Your task to perform on an android device: set default search engine in the chrome app Image 0: 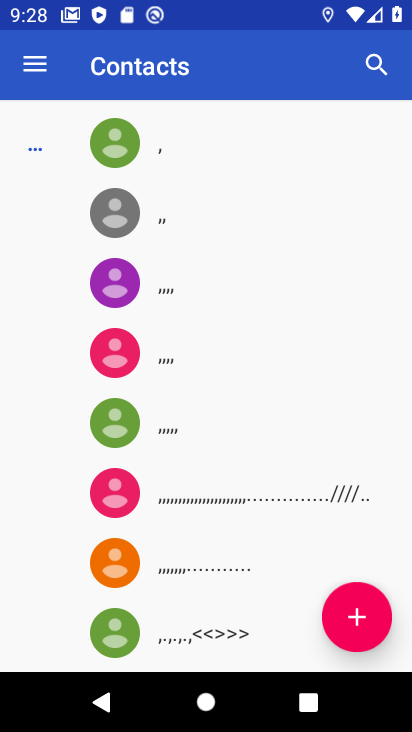
Step 0: press home button
Your task to perform on an android device: set default search engine in the chrome app Image 1: 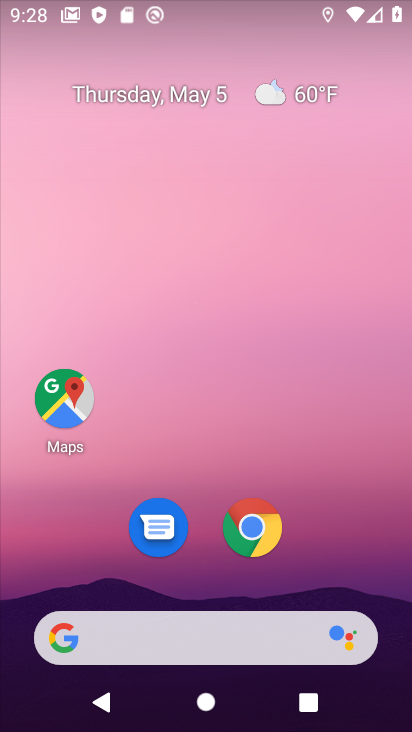
Step 1: click (248, 520)
Your task to perform on an android device: set default search engine in the chrome app Image 2: 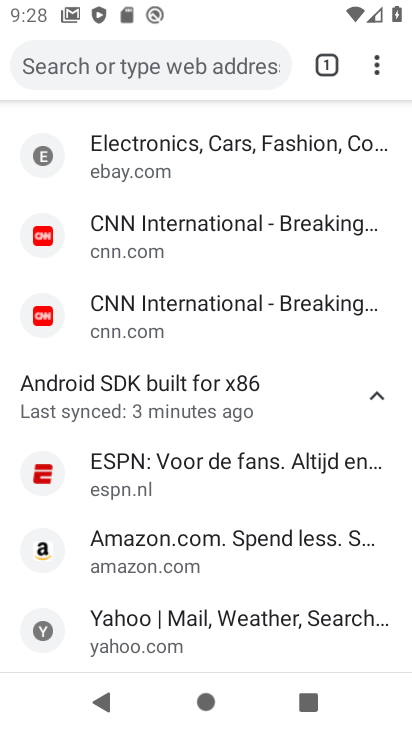
Step 2: click (379, 63)
Your task to perform on an android device: set default search engine in the chrome app Image 3: 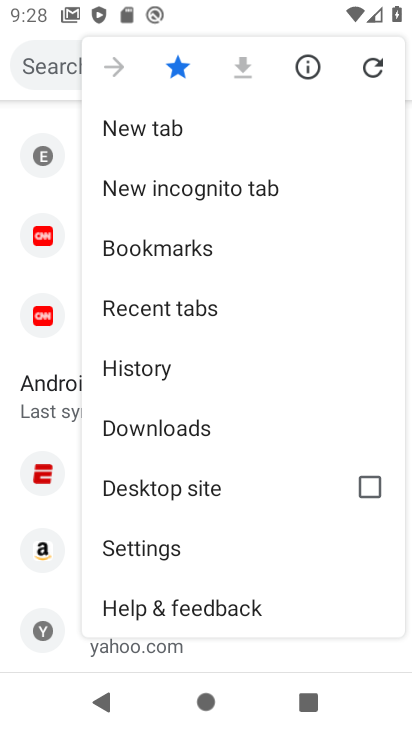
Step 3: click (180, 538)
Your task to perform on an android device: set default search engine in the chrome app Image 4: 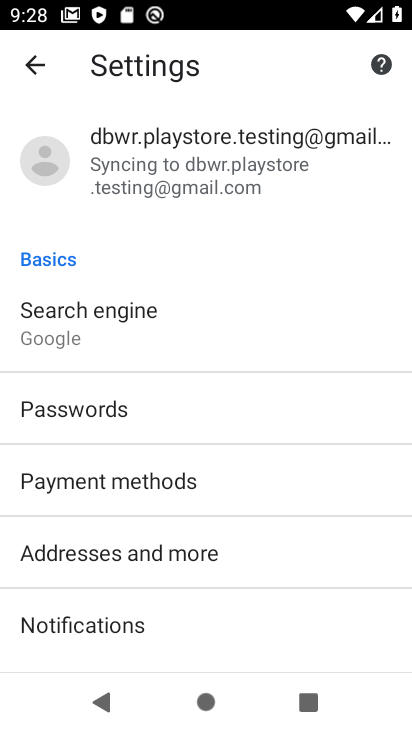
Step 4: click (114, 332)
Your task to perform on an android device: set default search engine in the chrome app Image 5: 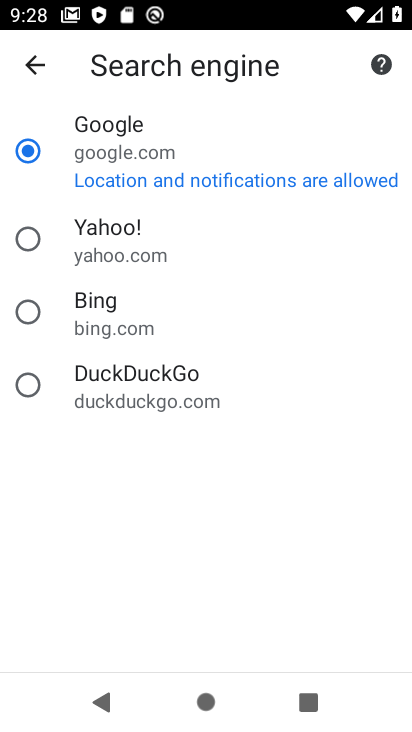
Step 5: click (22, 233)
Your task to perform on an android device: set default search engine in the chrome app Image 6: 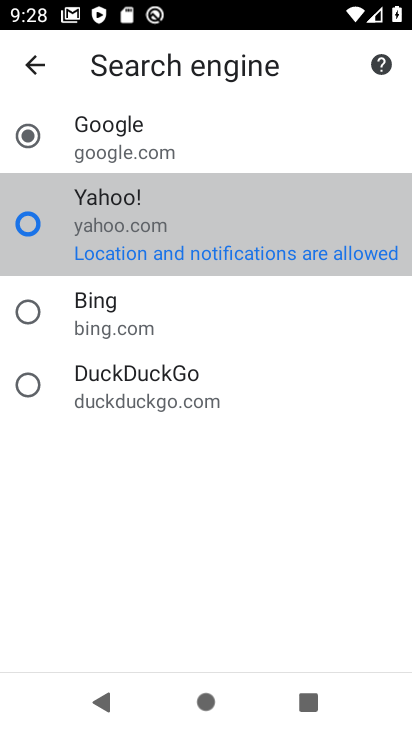
Step 6: task complete